Your task to perform on an android device: turn off notifications settings in the gmail app Image 0: 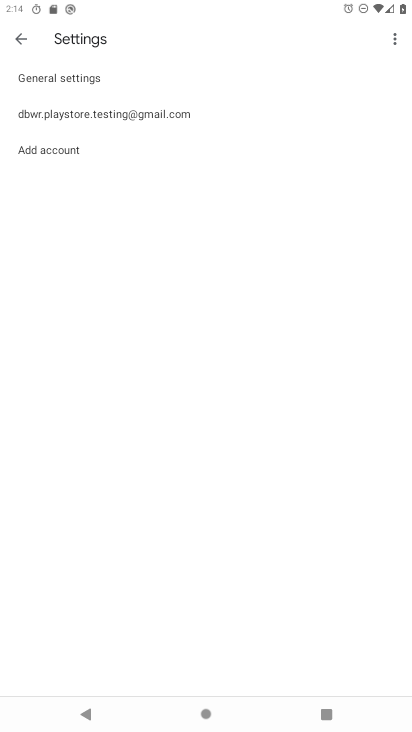
Step 0: press home button
Your task to perform on an android device: turn off notifications settings in the gmail app Image 1: 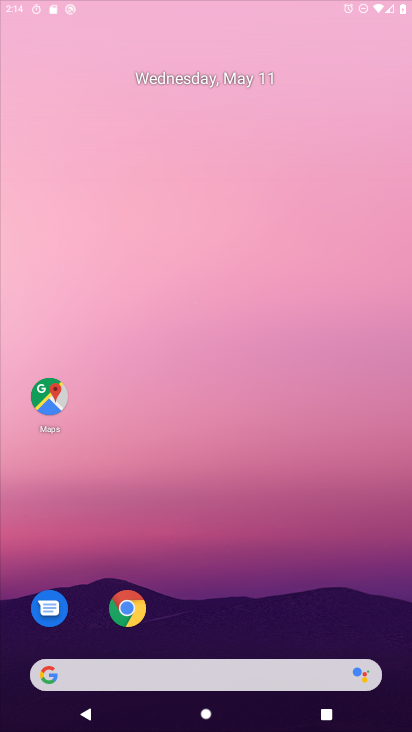
Step 1: drag from (174, 662) to (171, 55)
Your task to perform on an android device: turn off notifications settings in the gmail app Image 2: 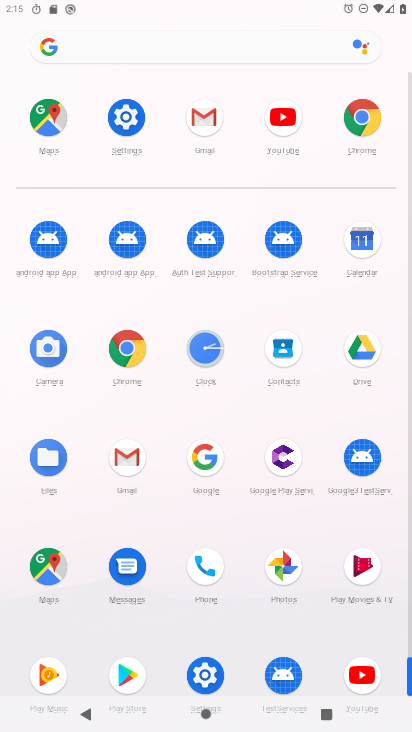
Step 2: click (133, 477)
Your task to perform on an android device: turn off notifications settings in the gmail app Image 3: 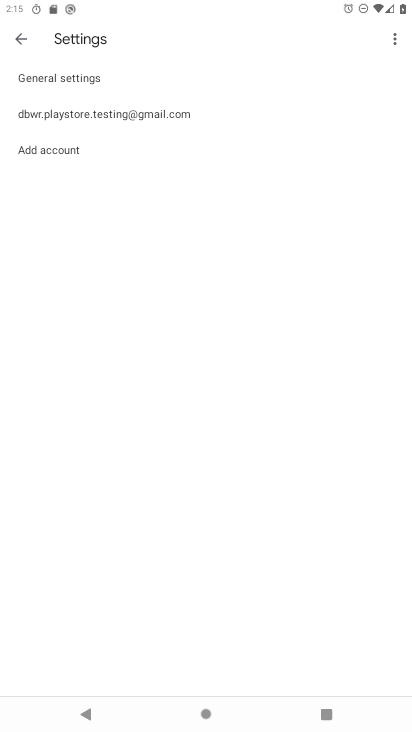
Step 3: click (102, 89)
Your task to perform on an android device: turn off notifications settings in the gmail app Image 4: 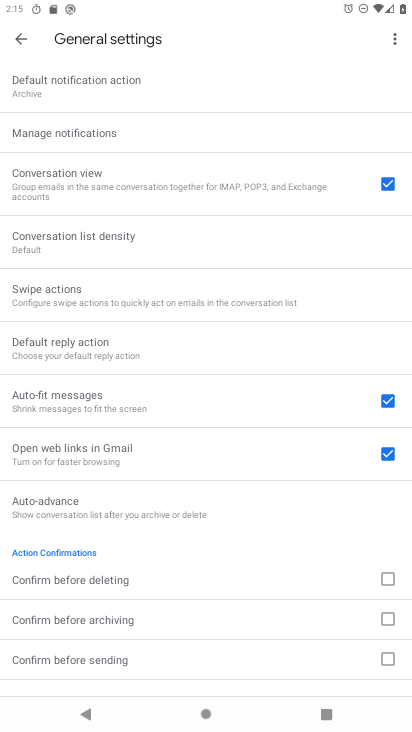
Step 4: click (111, 137)
Your task to perform on an android device: turn off notifications settings in the gmail app Image 5: 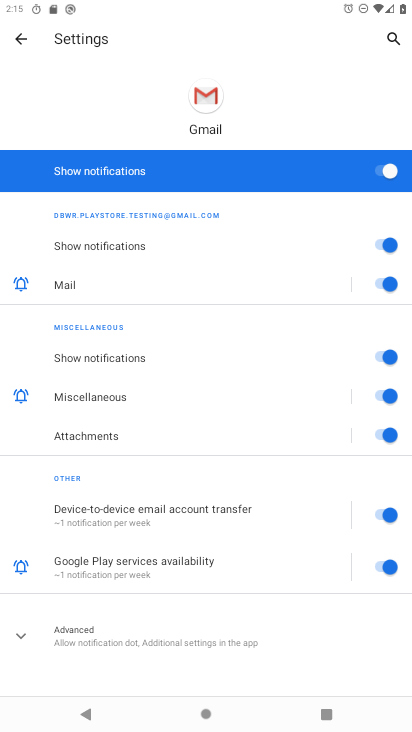
Step 5: click (383, 174)
Your task to perform on an android device: turn off notifications settings in the gmail app Image 6: 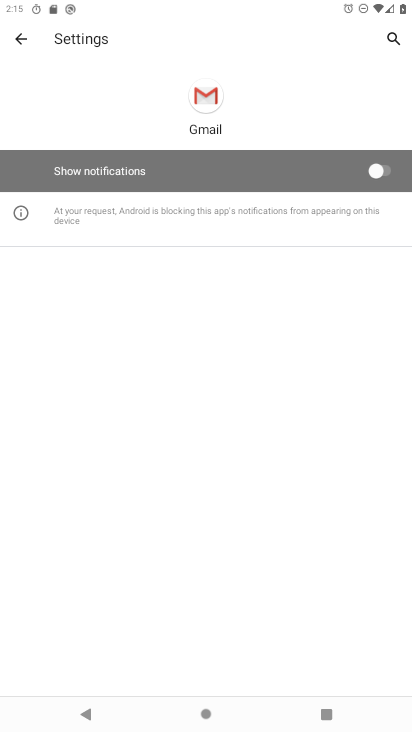
Step 6: task complete